Your task to perform on an android device: Go to network settings Image 0: 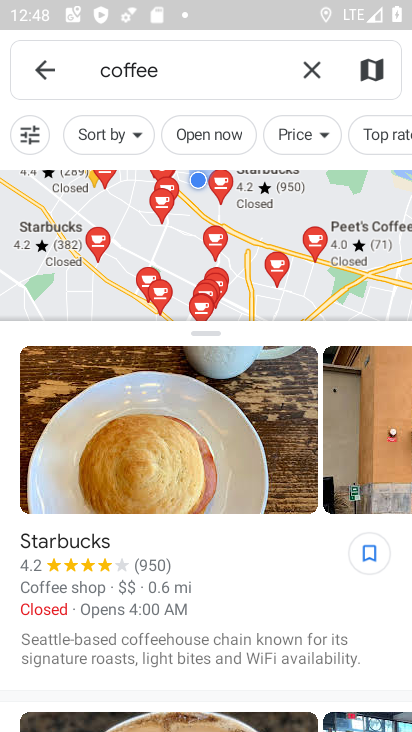
Step 0: press back button
Your task to perform on an android device: Go to network settings Image 1: 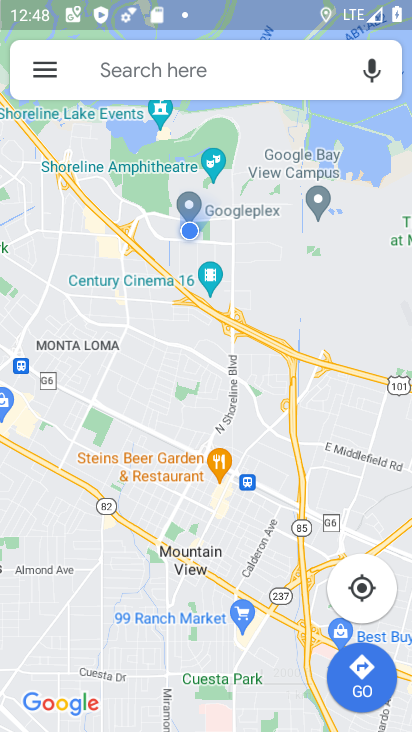
Step 1: press back button
Your task to perform on an android device: Go to network settings Image 2: 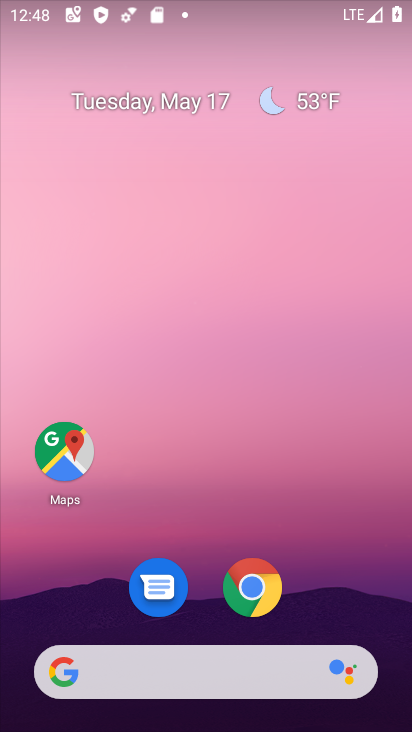
Step 2: drag from (227, 639) to (167, 51)
Your task to perform on an android device: Go to network settings Image 3: 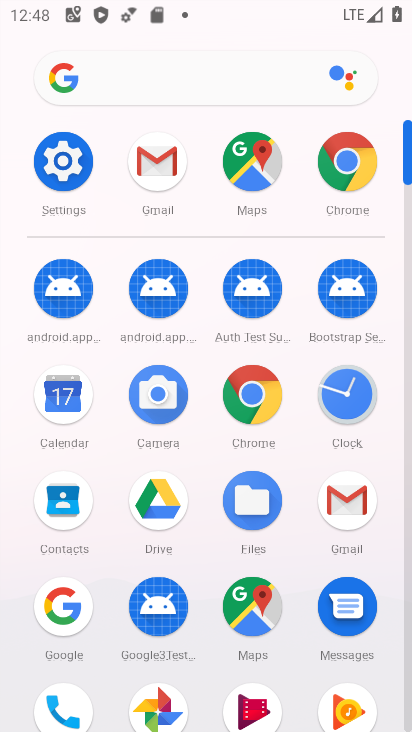
Step 3: click (68, 174)
Your task to perform on an android device: Go to network settings Image 4: 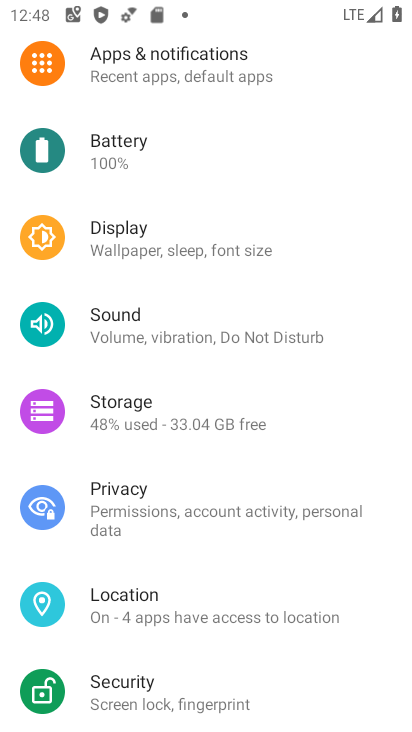
Step 4: drag from (92, 162) to (146, 550)
Your task to perform on an android device: Go to network settings Image 5: 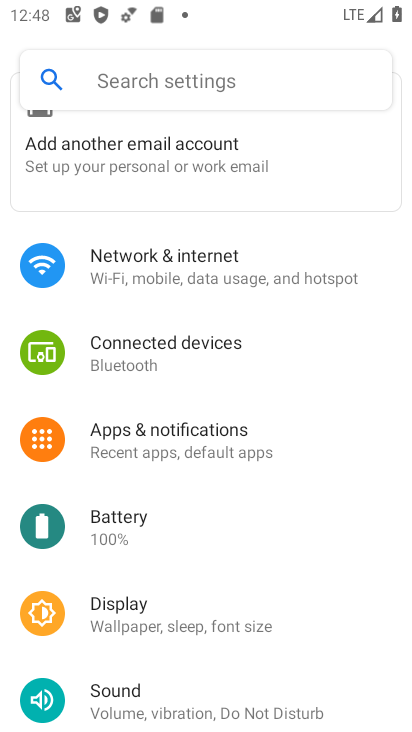
Step 5: click (165, 263)
Your task to perform on an android device: Go to network settings Image 6: 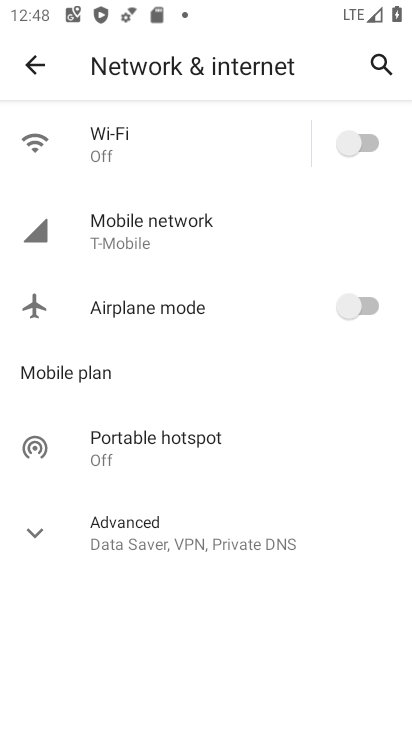
Step 6: click (167, 241)
Your task to perform on an android device: Go to network settings Image 7: 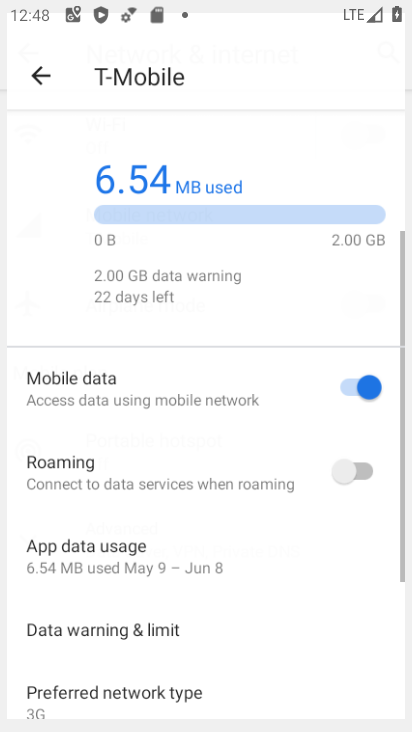
Step 7: task complete